Your task to perform on an android device: Open Youtube and go to the subscriptions tab Image 0: 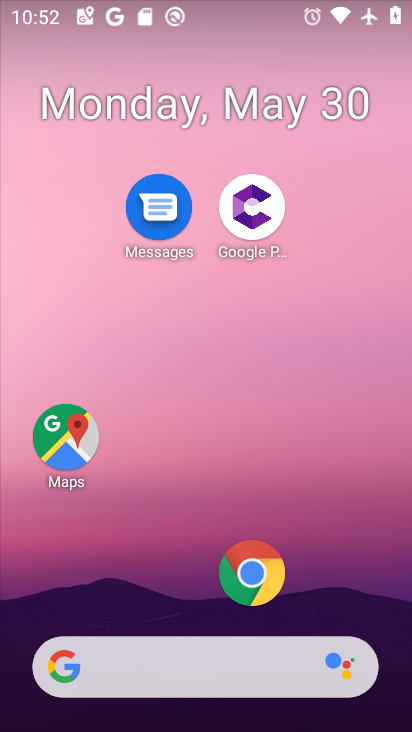
Step 0: drag from (331, 573) to (292, 55)
Your task to perform on an android device: Open Youtube and go to the subscriptions tab Image 1: 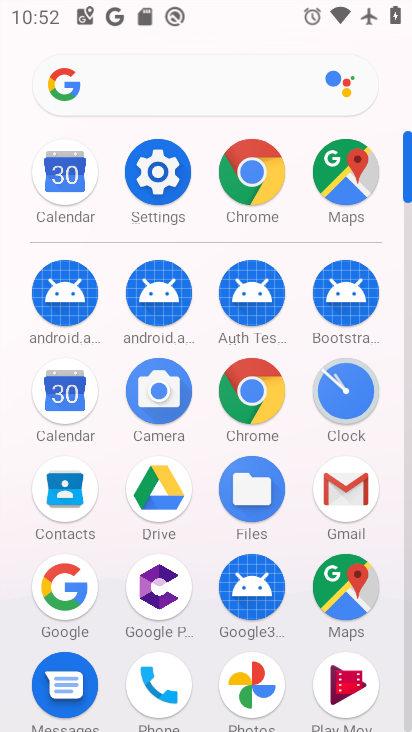
Step 1: drag from (161, 256) to (162, 186)
Your task to perform on an android device: Open Youtube and go to the subscriptions tab Image 2: 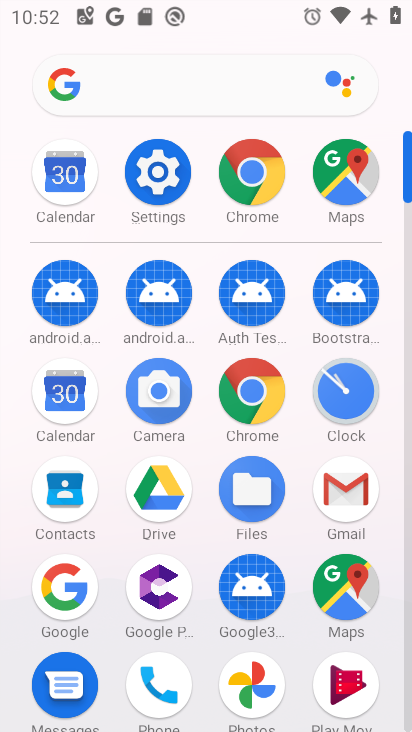
Step 2: drag from (137, 575) to (106, 147)
Your task to perform on an android device: Open Youtube and go to the subscriptions tab Image 3: 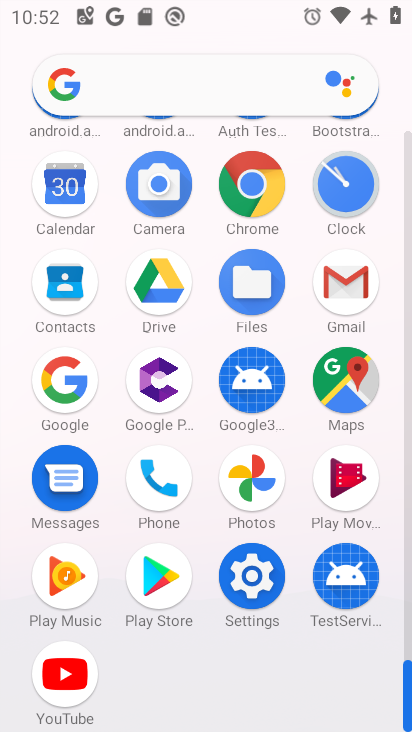
Step 3: click (79, 679)
Your task to perform on an android device: Open Youtube and go to the subscriptions tab Image 4: 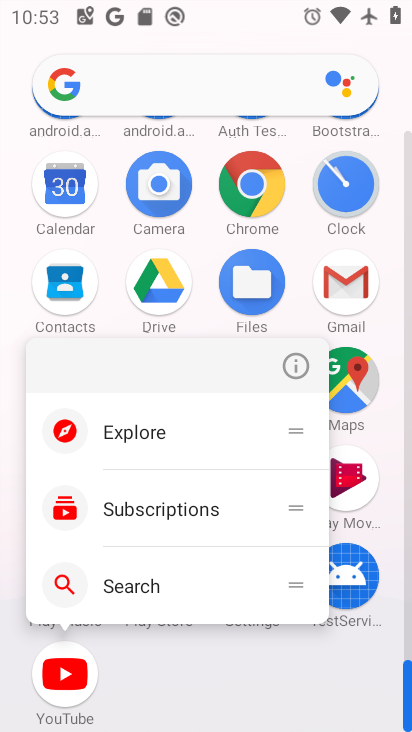
Step 4: click (79, 677)
Your task to perform on an android device: Open Youtube and go to the subscriptions tab Image 5: 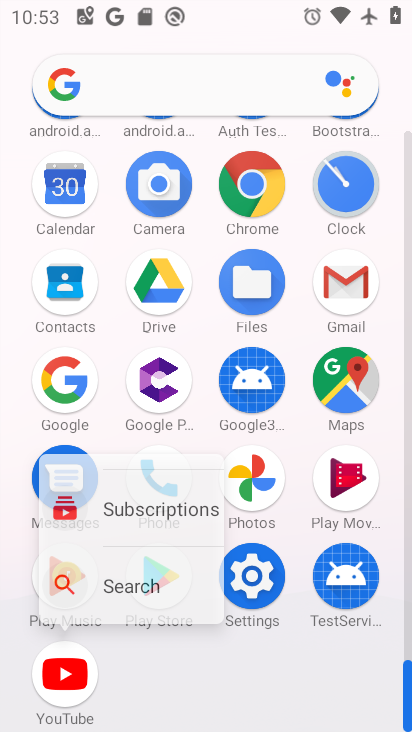
Step 5: click (79, 677)
Your task to perform on an android device: Open Youtube and go to the subscriptions tab Image 6: 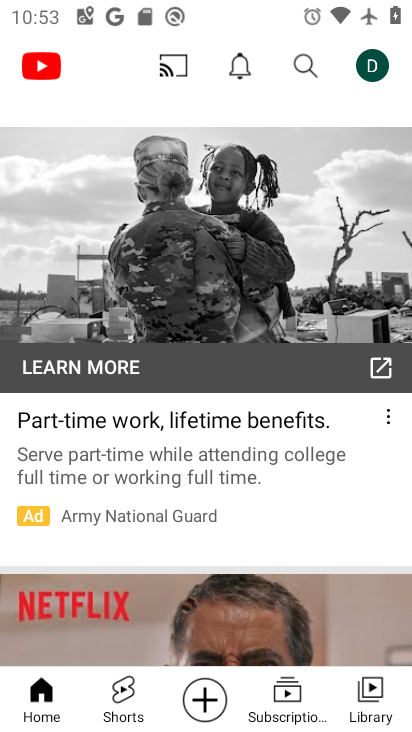
Step 6: click (308, 712)
Your task to perform on an android device: Open Youtube and go to the subscriptions tab Image 7: 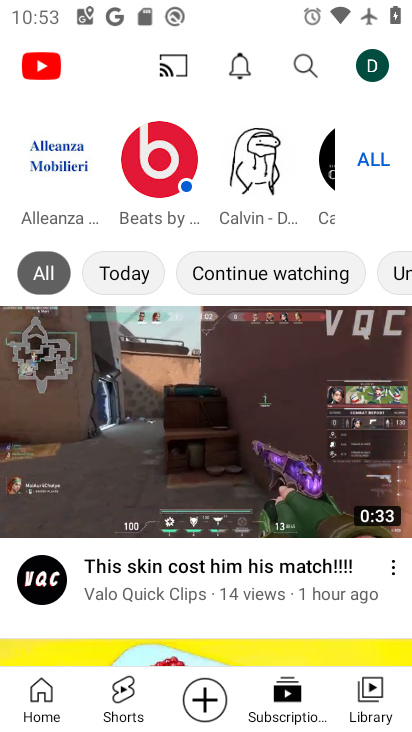
Step 7: task complete